Your task to perform on an android device: Go to display settings Image 0: 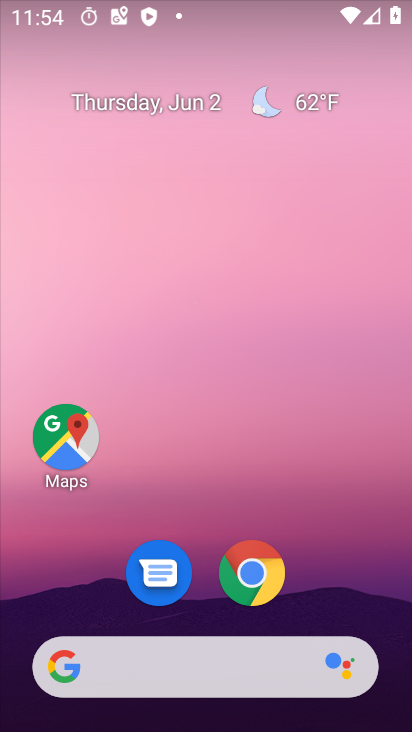
Step 0: drag from (286, 633) to (278, 36)
Your task to perform on an android device: Go to display settings Image 1: 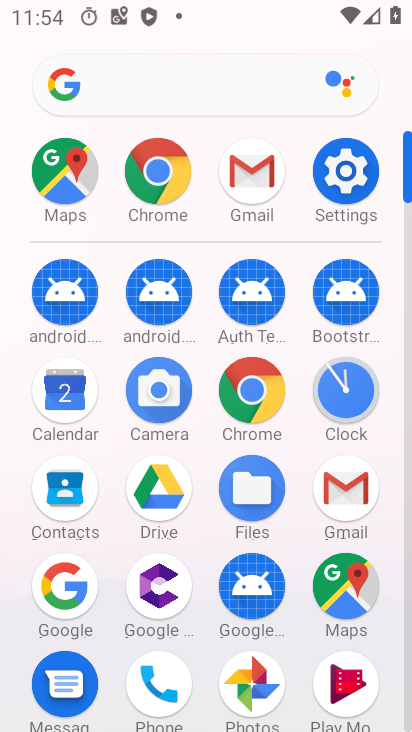
Step 1: click (363, 152)
Your task to perform on an android device: Go to display settings Image 2: 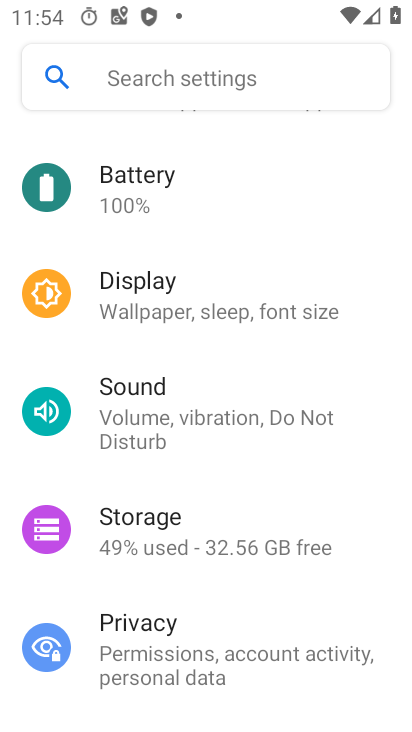
Step 2: click (246, 312)
Your task to perform on an android device: Go to display settings Image 3: 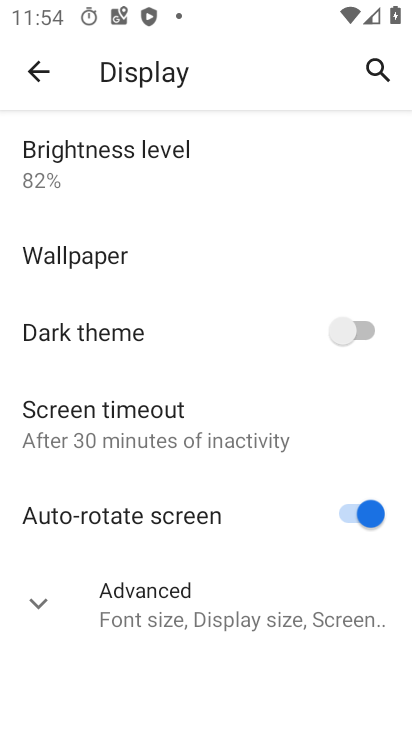
Step 3: task complete